Your task to perform on an android device: Open calendar and show me the first week of next month Image 0: 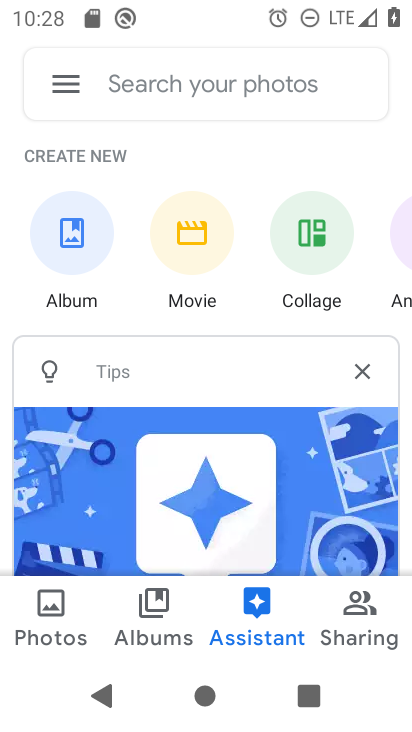
Step 0: press home button
Your task to perform on an android device: Open calendar and show me the first week of next month Image 1: 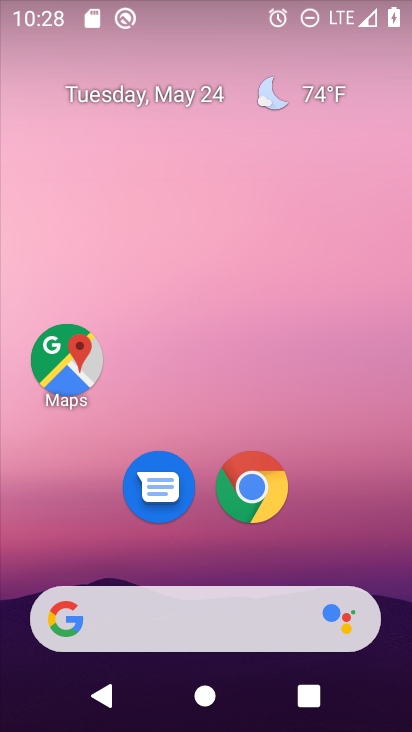
Step 1: drag from (346, 562) to (313, 4)
Your task to perform on an android device: Open calendar and show me the first week of next month Image 2: 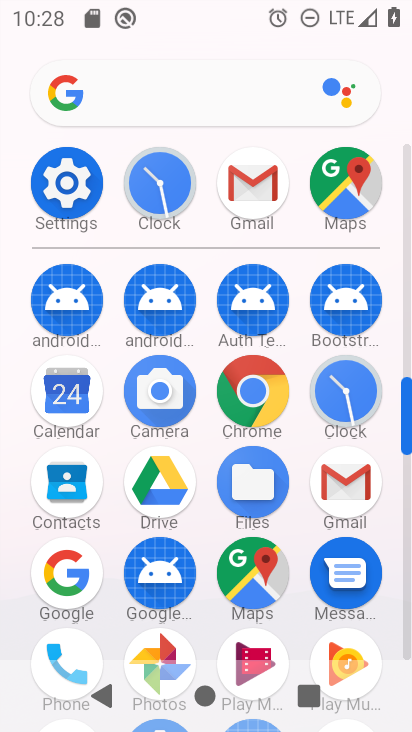
Step 2: click (55, 387)
Your task to perform on an android device: Open calendar and show me the first week of next month Image 3: 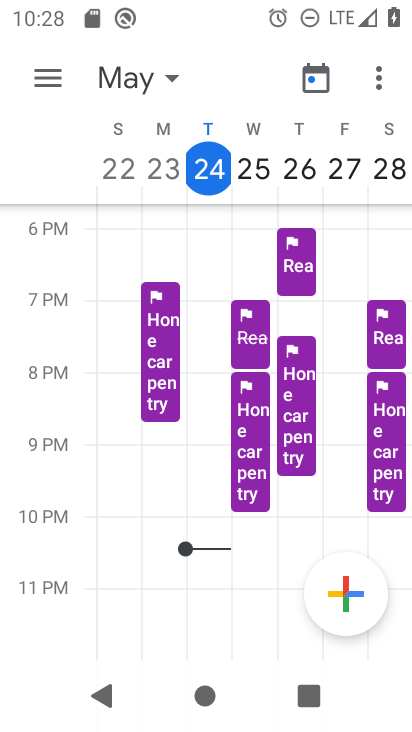
Step 3: task complete